Your task to perform on an android device: Go to eBay Image 0: 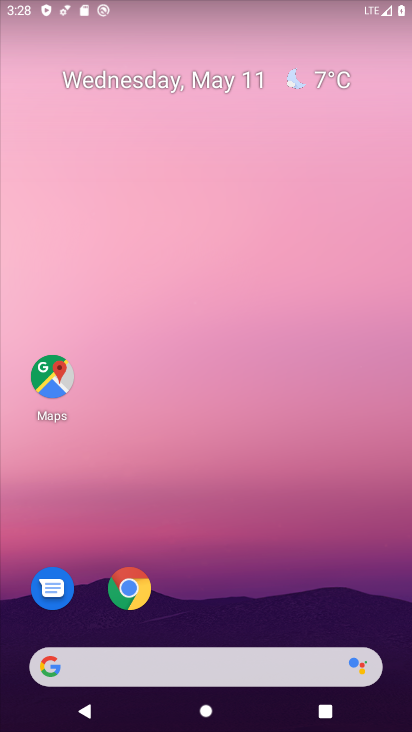
Step 0: click (125, 589)
Your task to perform on an android device: Go to eBay Image 1: 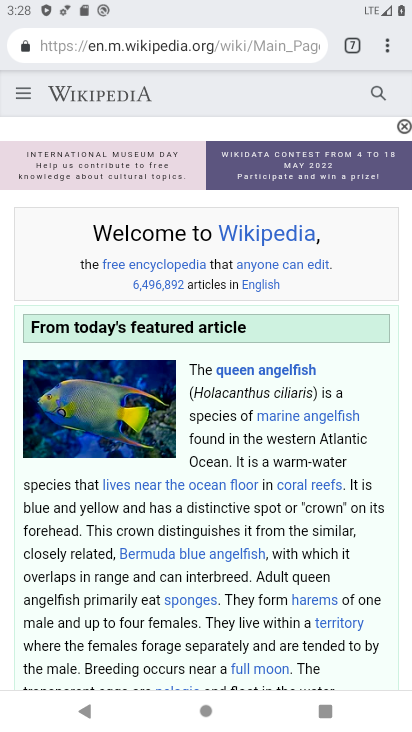
Step 1: click (387, 53)
Your task to perform on an android device: Go to eBay Image 2: 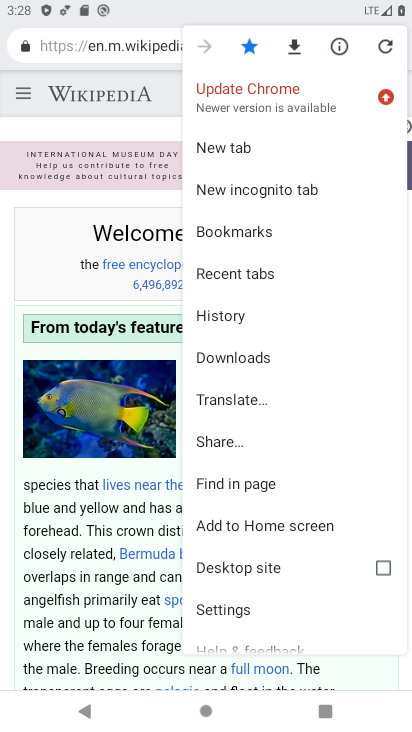
Step 2: click (234, 145)
Your task to perform on an android device: Go to eBay Image 3: 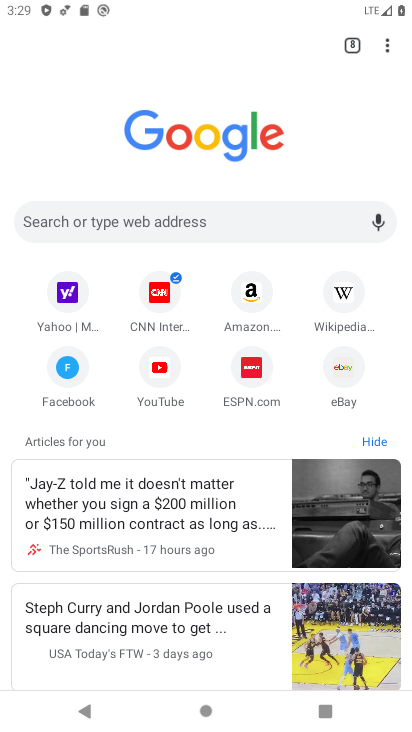
Step 3: click (348, 366)
Your task to perform on an android device: Go to eBay Image 4: 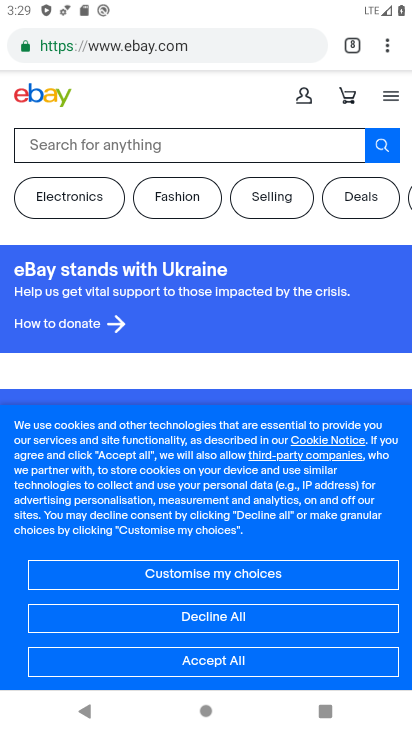
Step 4: task complete